Your task to perform on an android device: Go to ESPN.com Image 0: 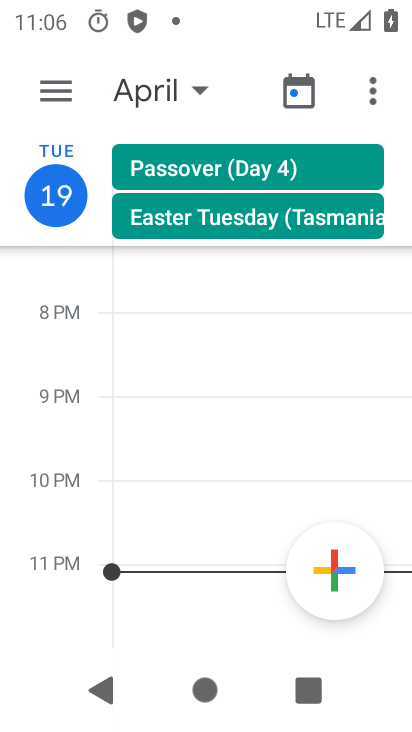
Step 0: press home button
Your task to perform on an android device: Go to ESPN.com Image 1: 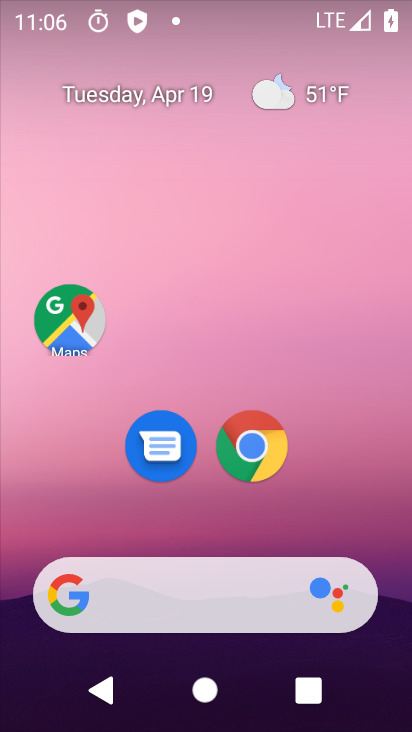
Step 1: click (273, 451)
Your task to perform on an android device: Go to ESPN.com Image 2: 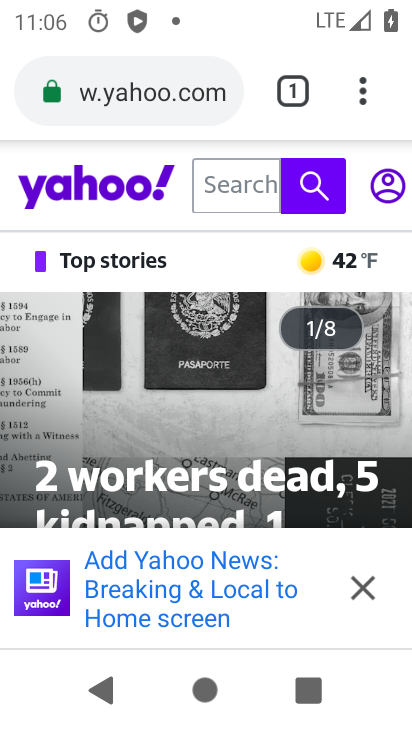
Step 2: click (362, 77)
Your task to perform on an android device: Go to ESPN.com Image 3: 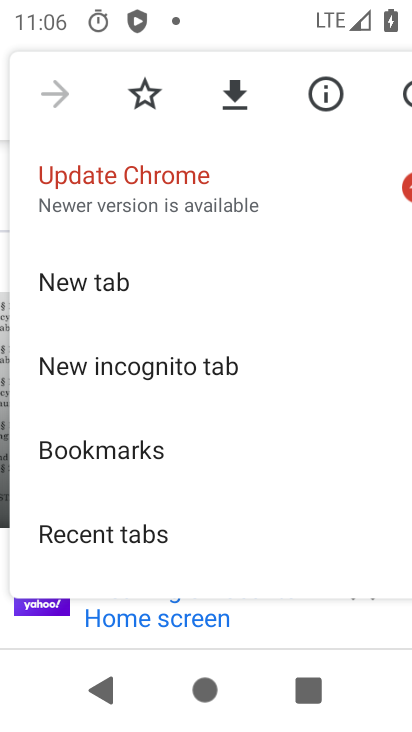
Step 3: click (90, 281)
Your task to perform on an android device: Go to ESPN.com Image 4: 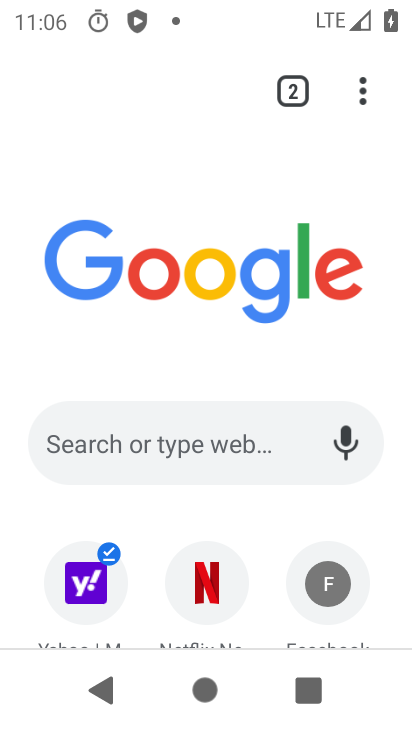
Step 4: click (148, 455)
Your task to perform on an android device: Go to ESPN.com Image 5: 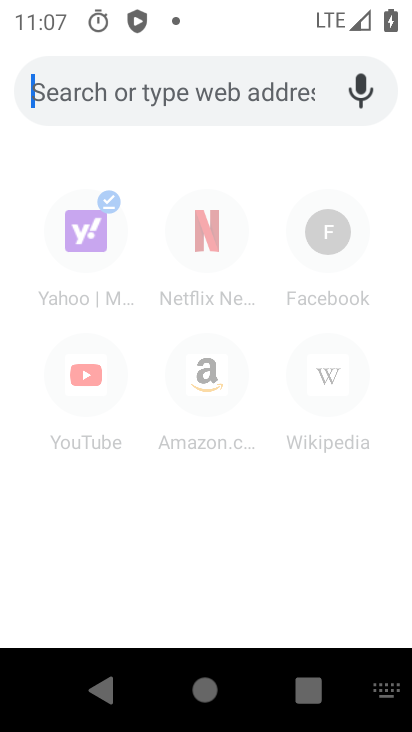
Step 5: type "ESPN.com"
Your task to perform on an android device: Go to ESPN.com Image 6: 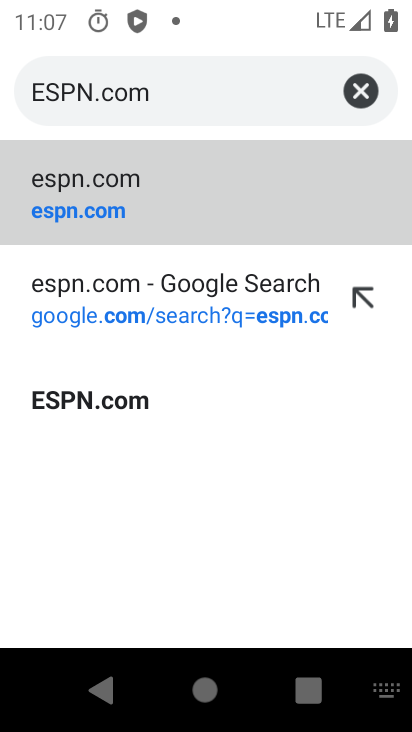
Step 6: click (110, 205)
Your task to perform on an android device: Go to ESPN.com Image 7: 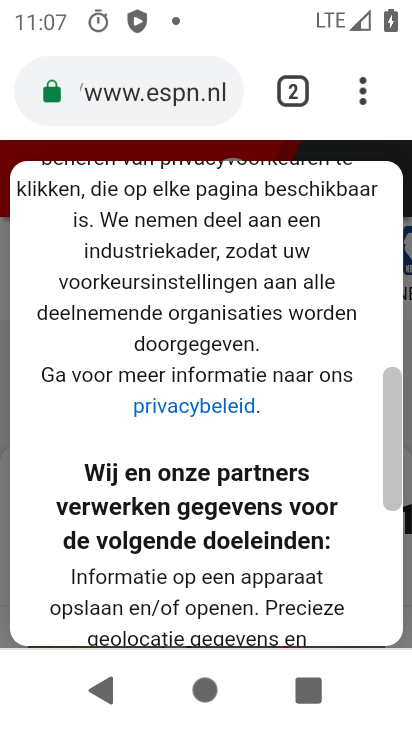
Step 7: task complete